Your task to perform on an android device: Look up the best rated power drills on Lowes.com Image 0: 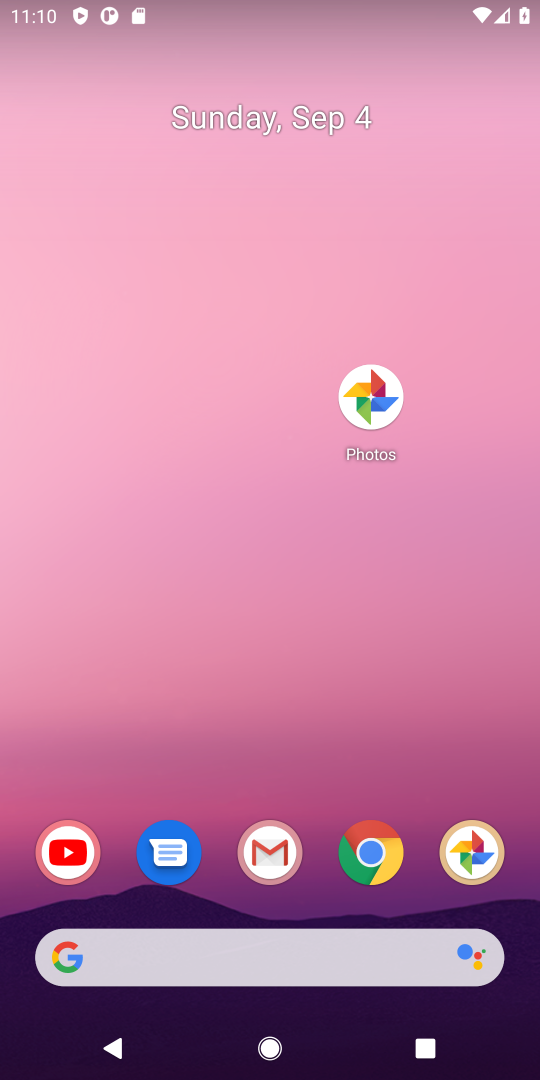
Step 0: click (181, 0)
Your task to perform on an android device: Look up the best rated power drills on Lowes.com Image 1: 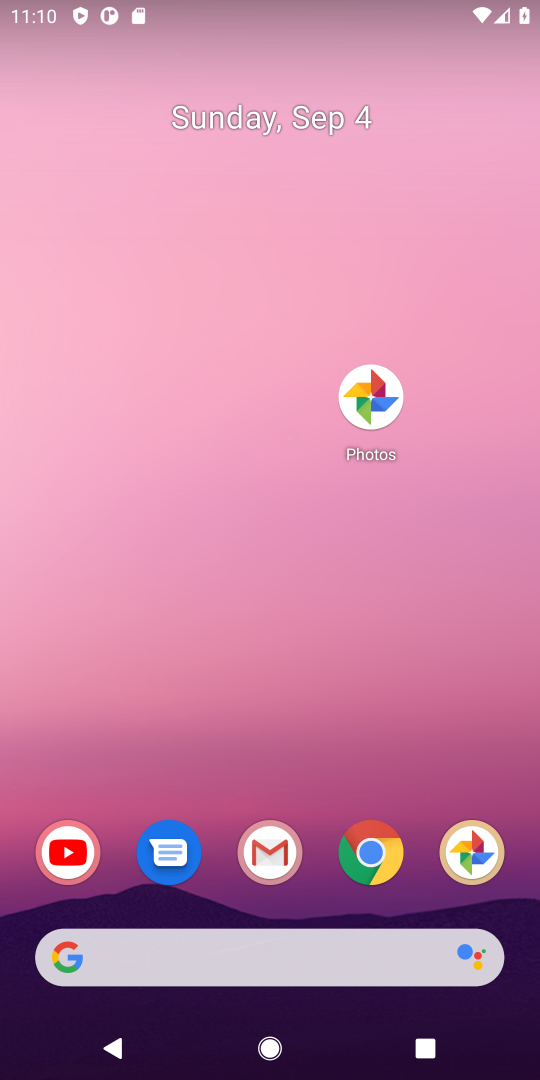
Step 1: drag from (439, 892) to (208, 9)
Your task to perform on an android device: Look up the best rated power drills on Lowes.com Image 2: 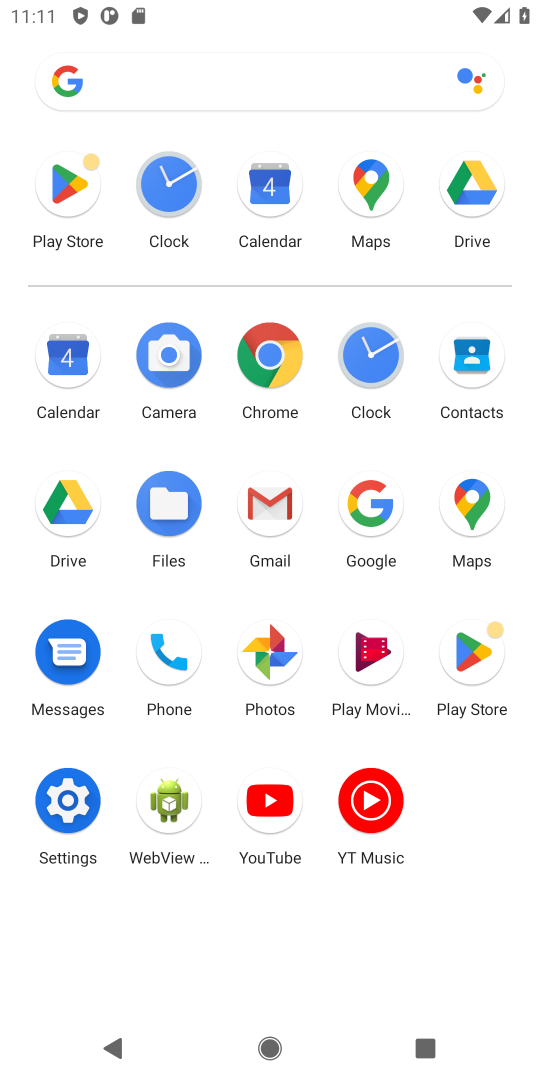
Step 2: click (392, 505)
Your task to perform on an android device: Look up the best rated power drills on Lowes.com Image 3: 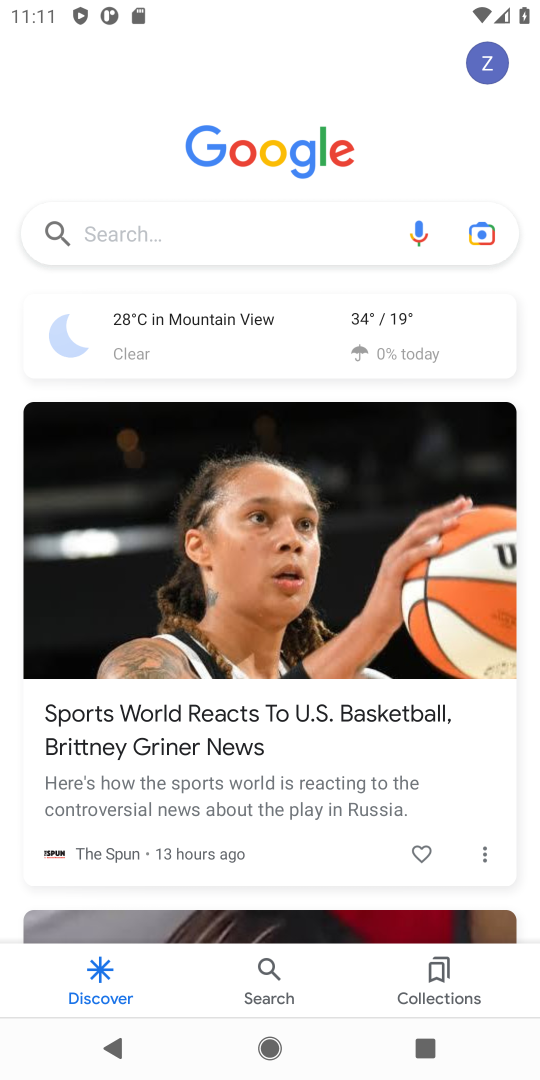
Step 3: click (190, 237)
Your task to perform on an android device: Look up the best rated power drills on Lowes.com Image 4: 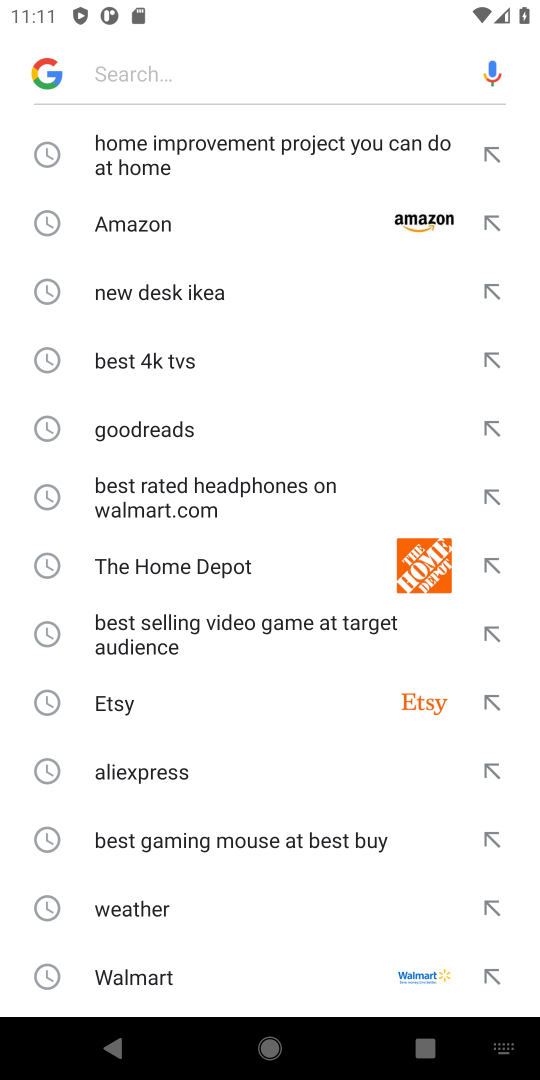
Step 4: type "best rated power drills on Lowes.com"
Your task to perform on an android device: Look up the best rated power drills on Lowes.com Image 5: 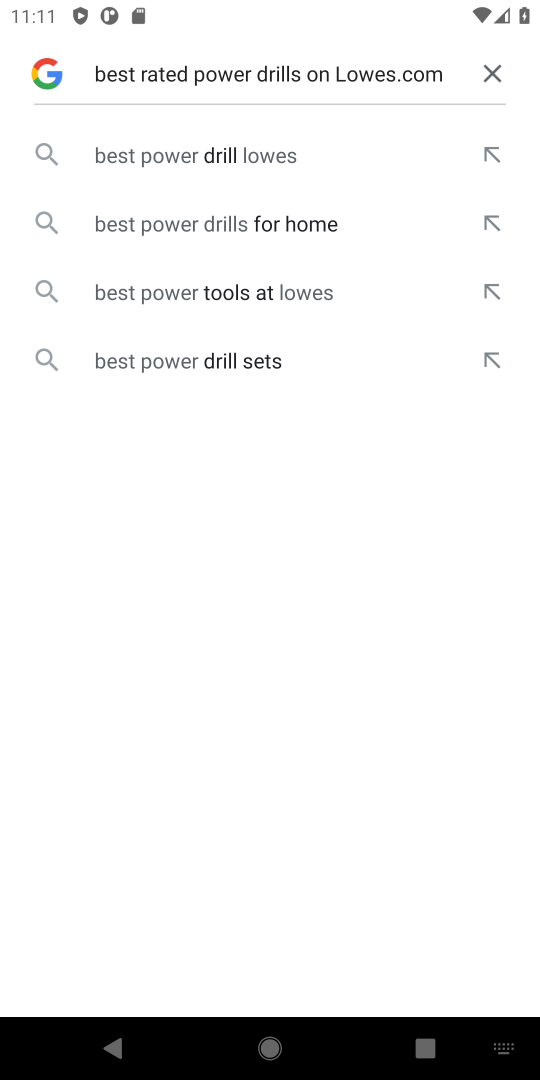
Step 5: task complete